Your task to perform on an android device: Open settings Image 0: 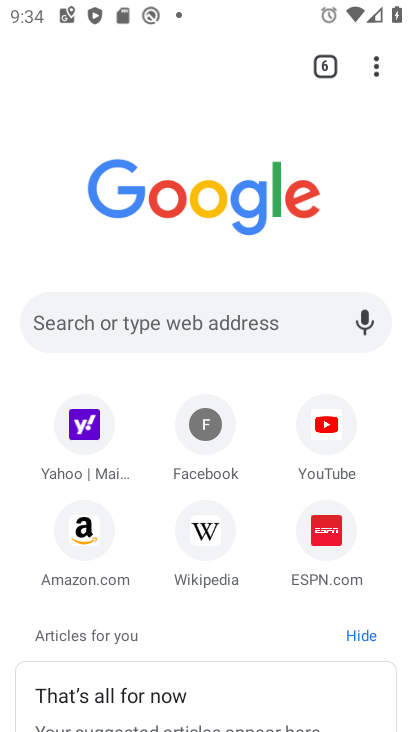
Step 0: press home button
Your task to perform on an android device: Open settings Image 1: 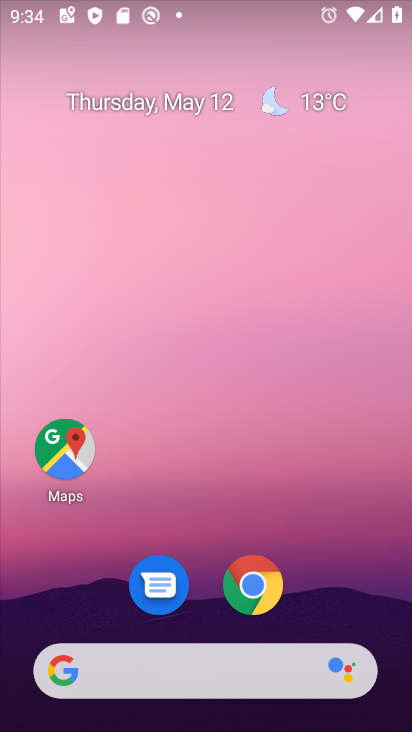
Step 1: drag from (253, 492) to (213, 38)
Your task to perform on an android device: Open settings Image 2: 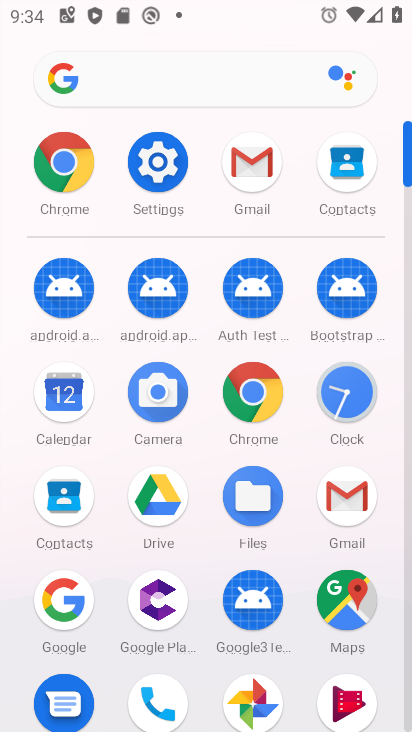
Step 2: click (160, 154)
Your task to perform on an android device: Open settings Image 3: 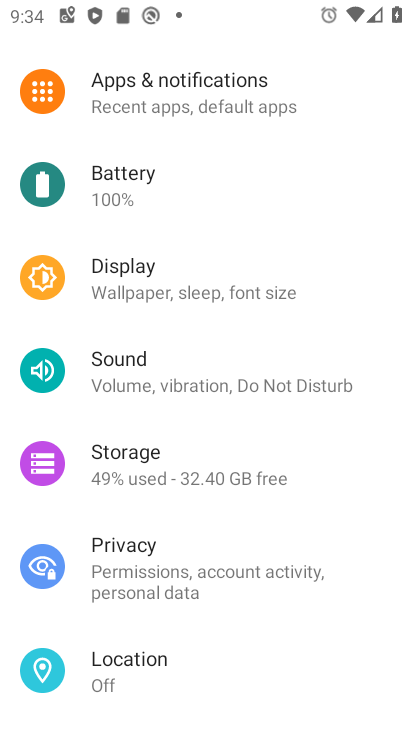
Step 3: task complete